Your task to perform on an android device: Search for flights from NYC to Paris Image 0: 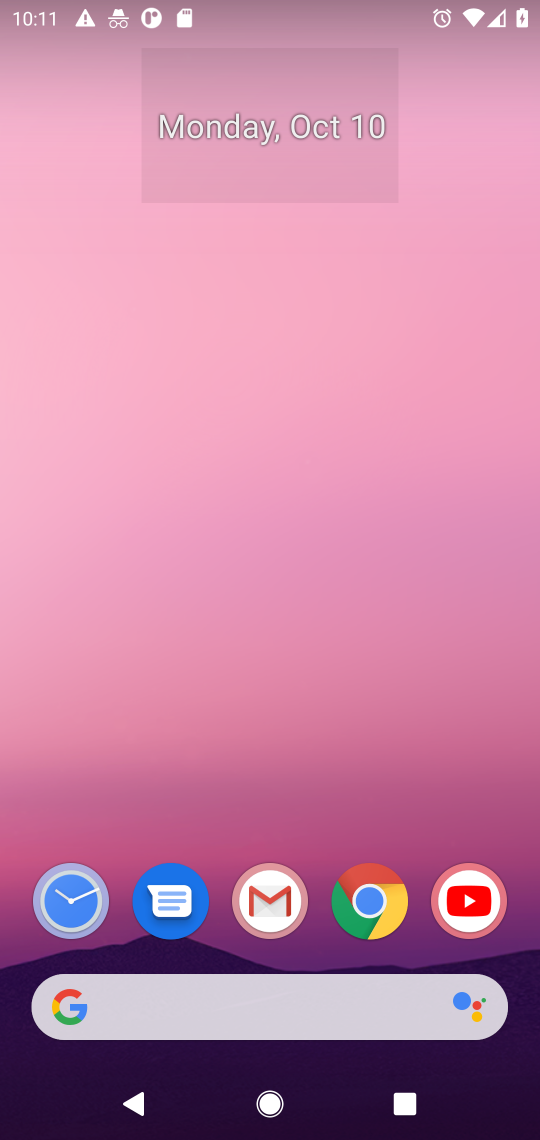
Step 0: press home button
Your task to perform on an android device: Search for flights from NYC to Paris Image 1: 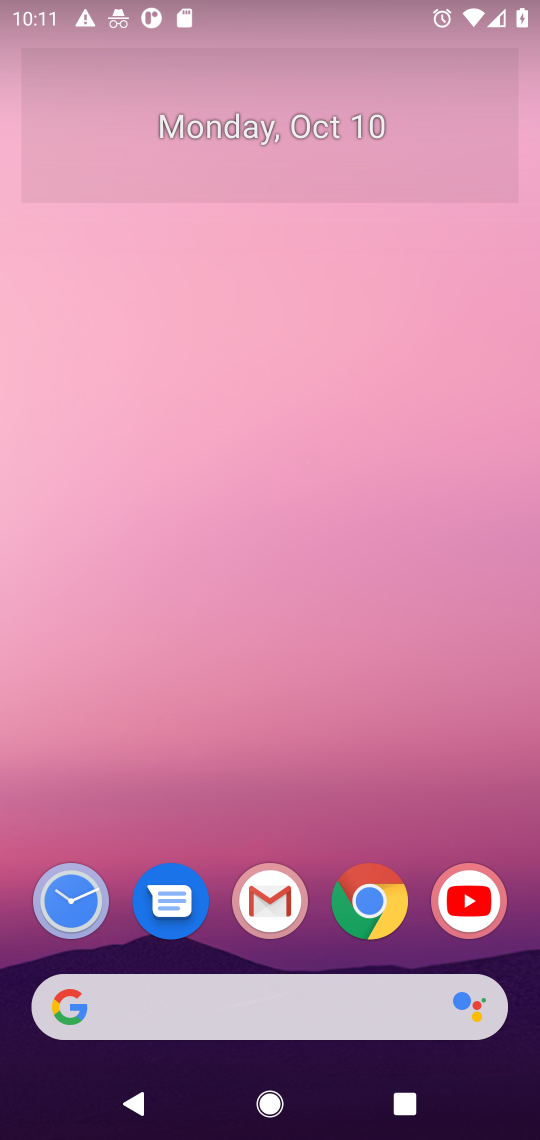
Step 1: click (258, 1006)
Your task to perform on an android device: Search for flights from NYC to Paris Image 2: 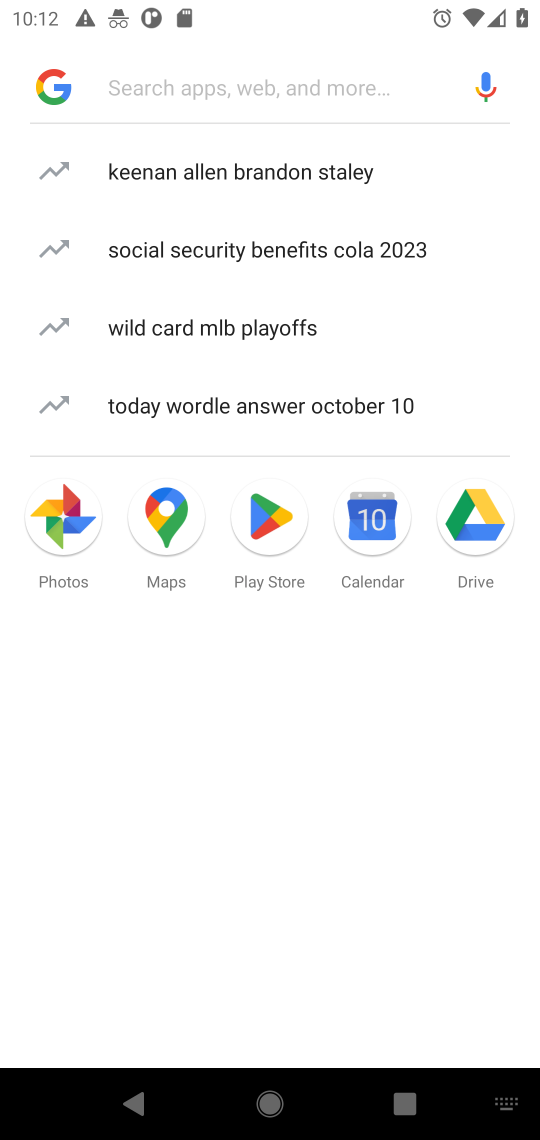
Step 2: press enter
Your task to perform on an android device: Search for flights from NYC to Paris Image 3: 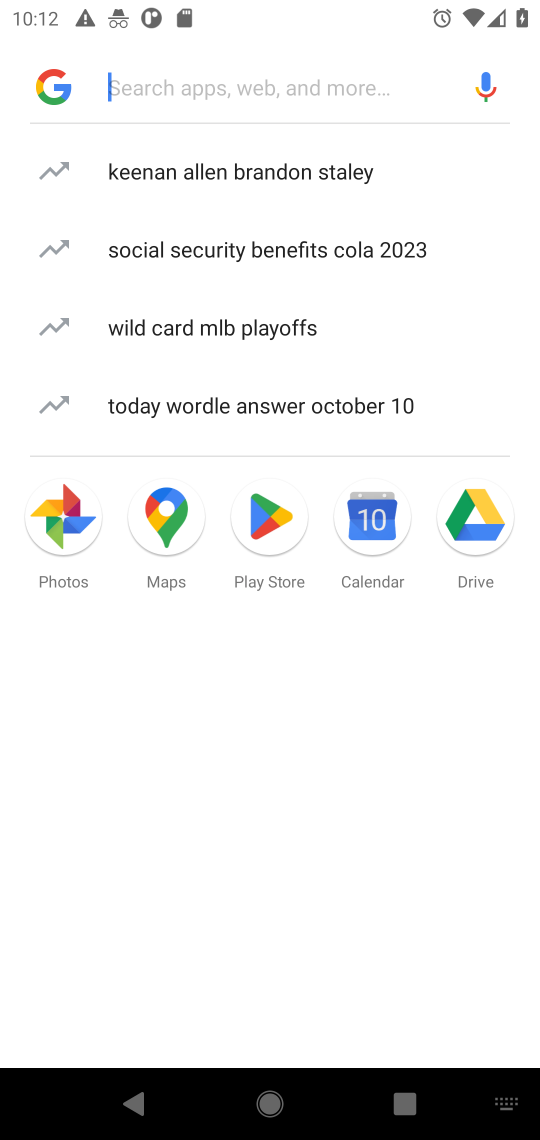
Step 3: type "flights from NYC to Paris"
Your task to perform on an android device: Search for flights from NYC to Paris Image 4: 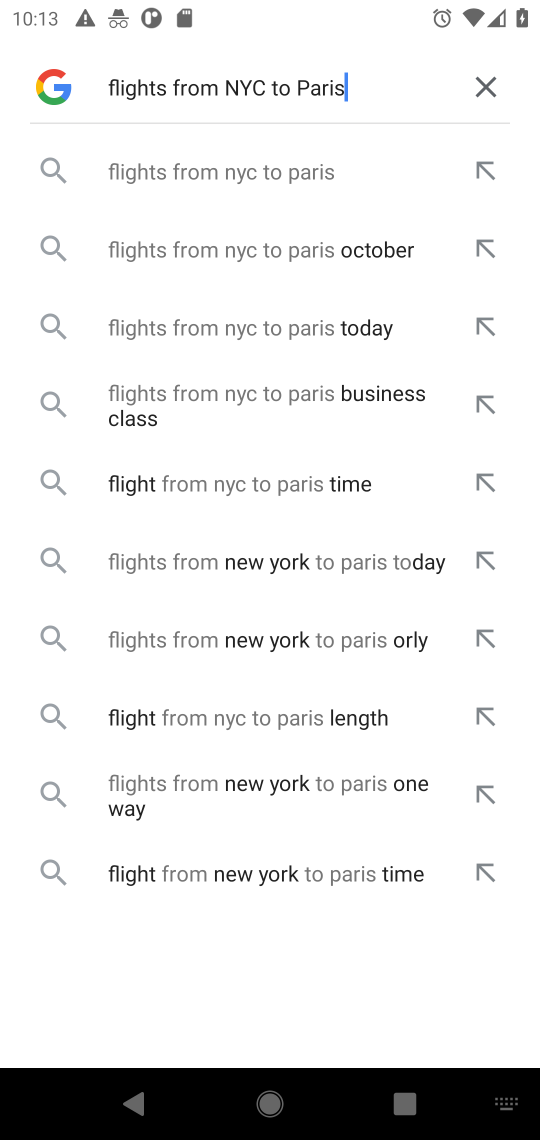
Step 4: press enter
Your task to perform on an android device: Search for flights from NYC to Paris Image 5: 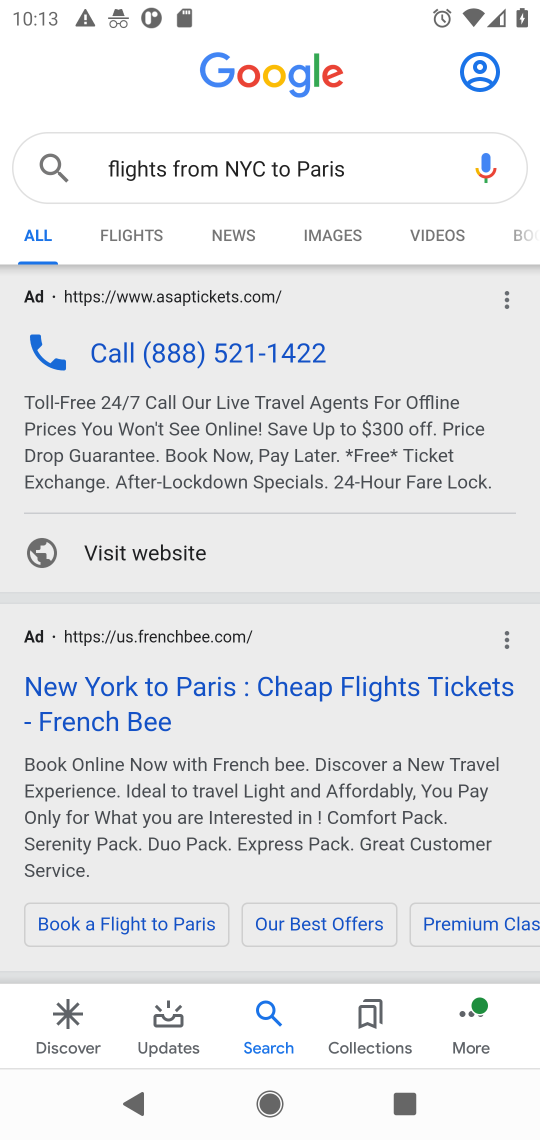
Step 5: drag from (392, 766) to (387, 385)
Your task to perform on an android device: Search for flights from NYC to Paris Image 6: 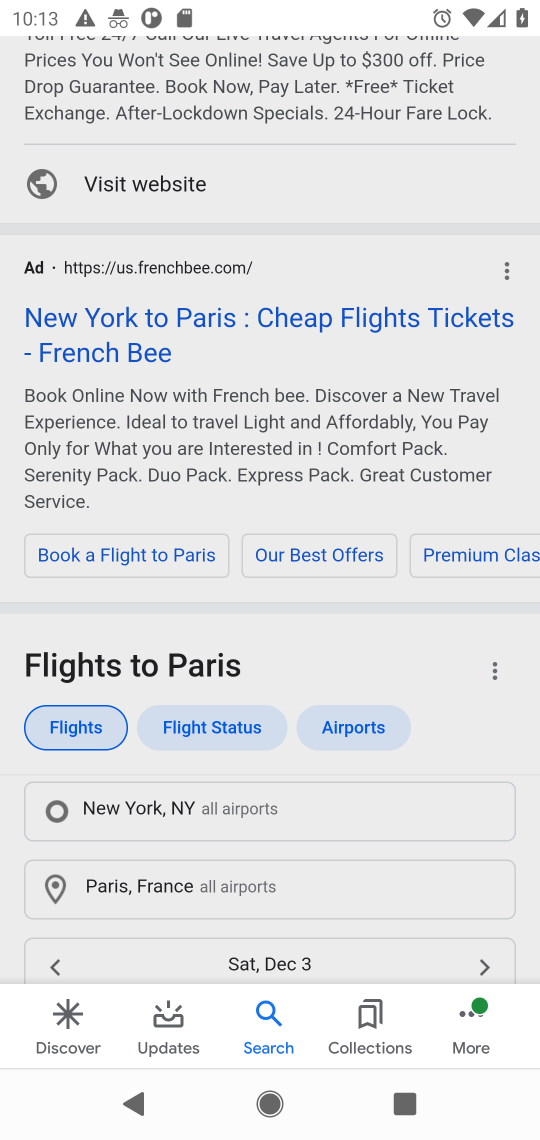
Step 6: drag from (427, 864) to (384, 488)
Your task to perform on an android device: Search for flights from NYC to Paris Image 7: 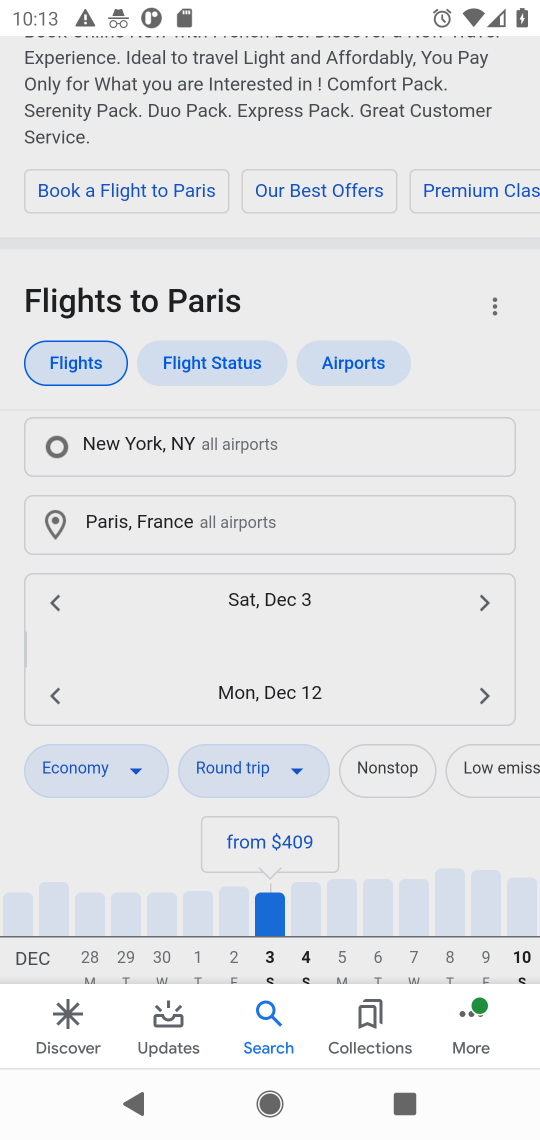
Step 7: drag from (392, 833) to (370, 410)
Your task to perform on an android device: Search for flights from NYC to Paris Image 8: 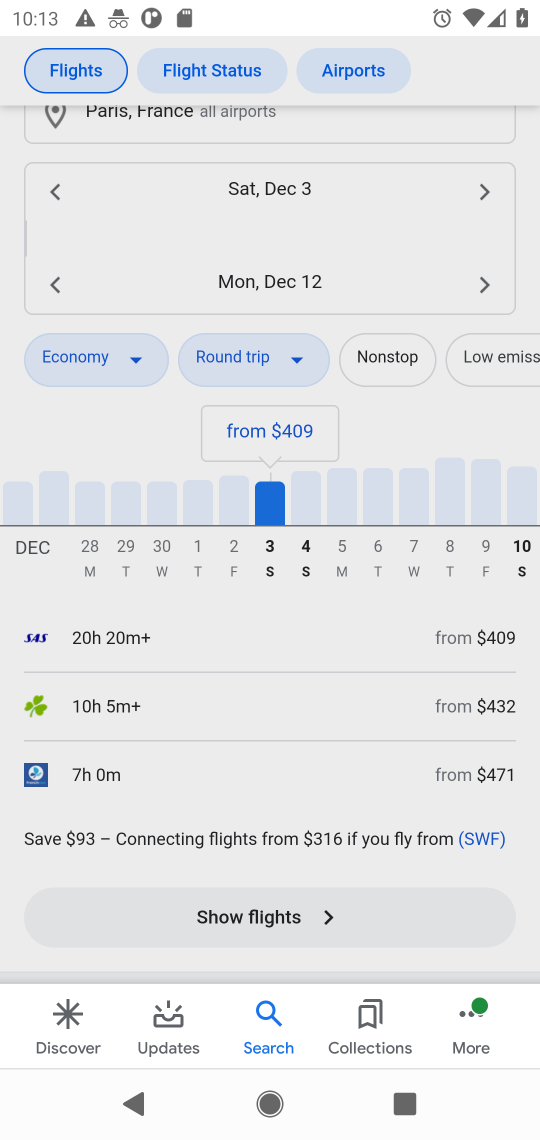
Step 8: click (266, 915)
Your task to perform on an android device: Search for flights from NYC to Paris Image 9: 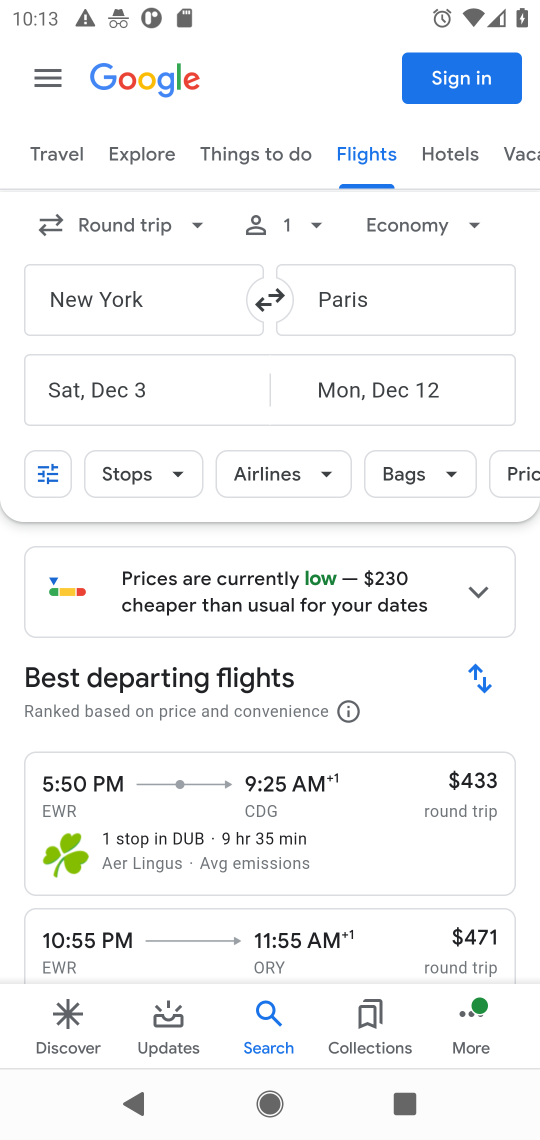
Step 9: task complete